Your task to perform on an android device: open app "Facebook Lite" (install if not already installed) Image 0: 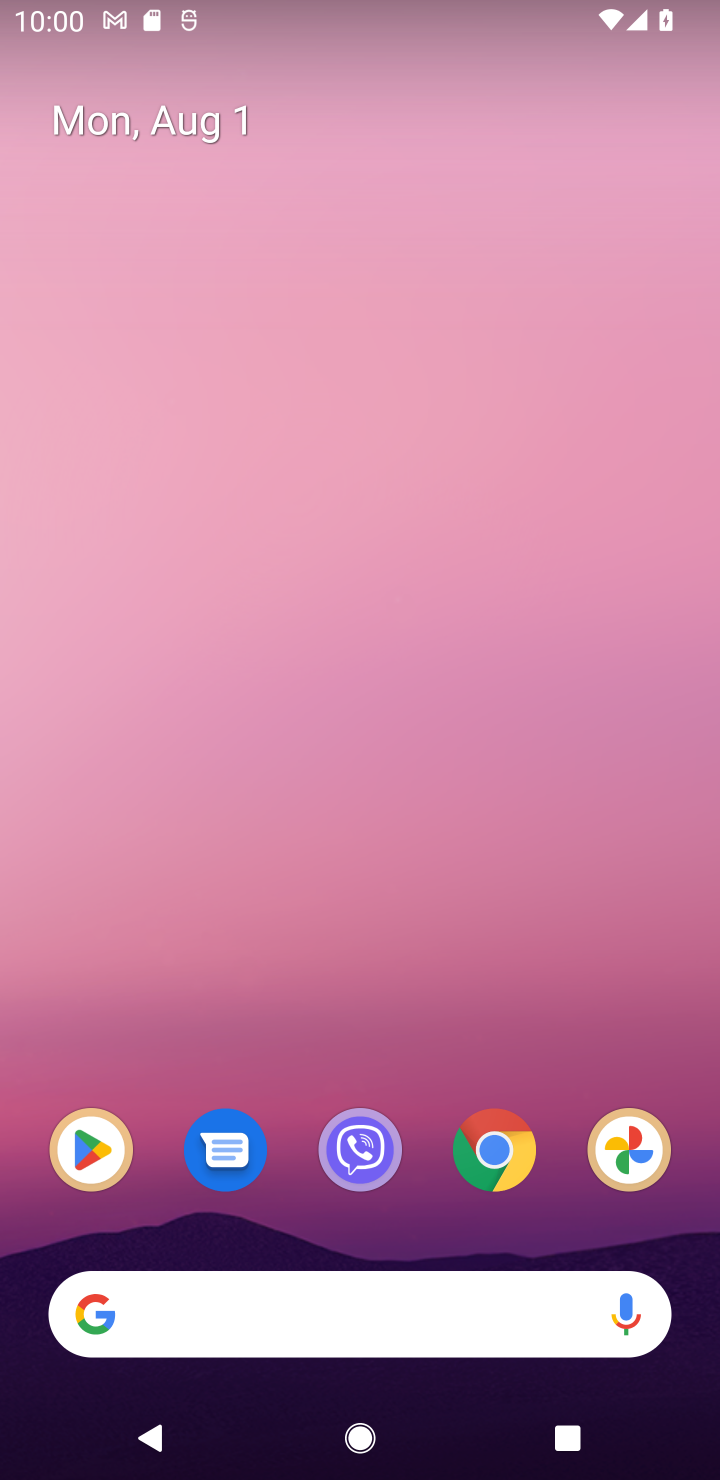
Step 0: drag from (297, 1310) to (372, 381)
Your task to perform on an android device: open app "Facebook Lite" (install if not already installed) Image 1: 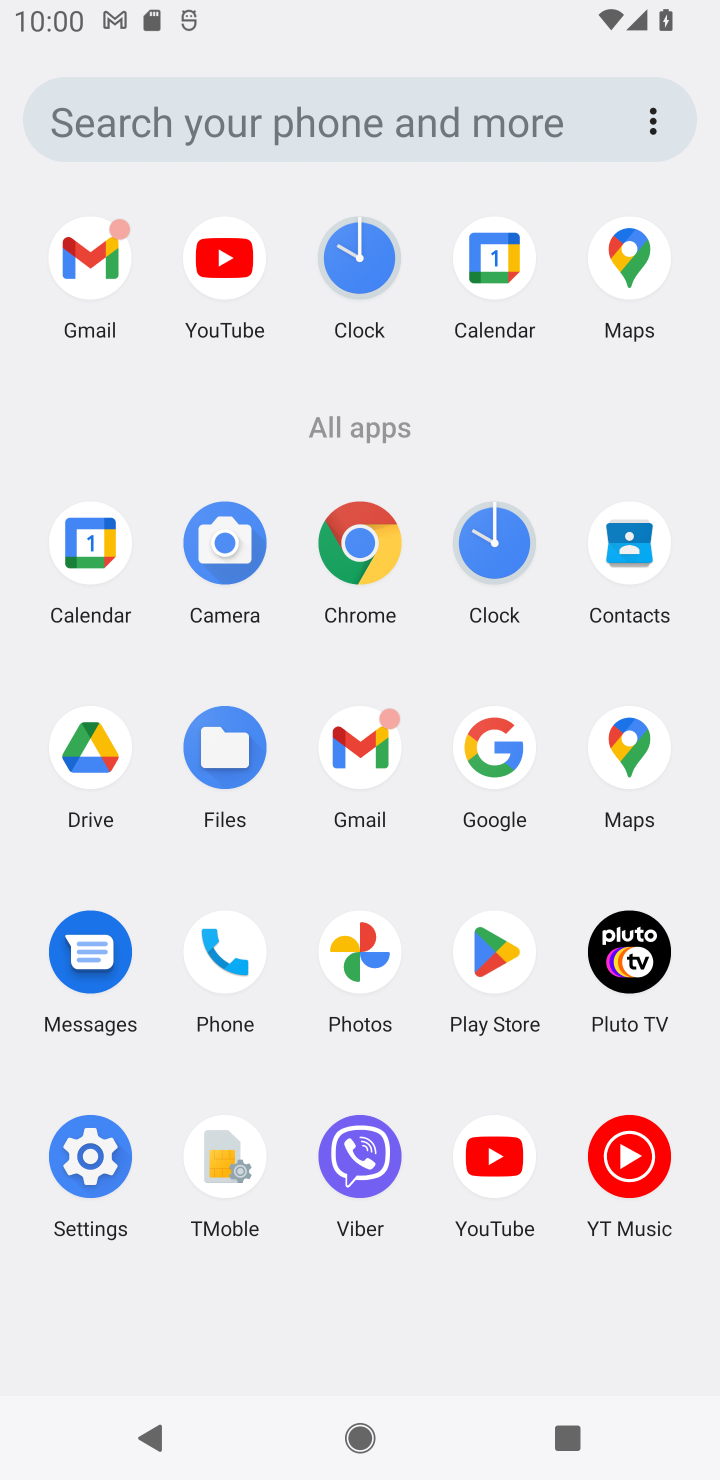
Step 1: click (516, 946)
Your task to perform on an android device: open app "Facebook Lite" (install if not already installed) Image 2: 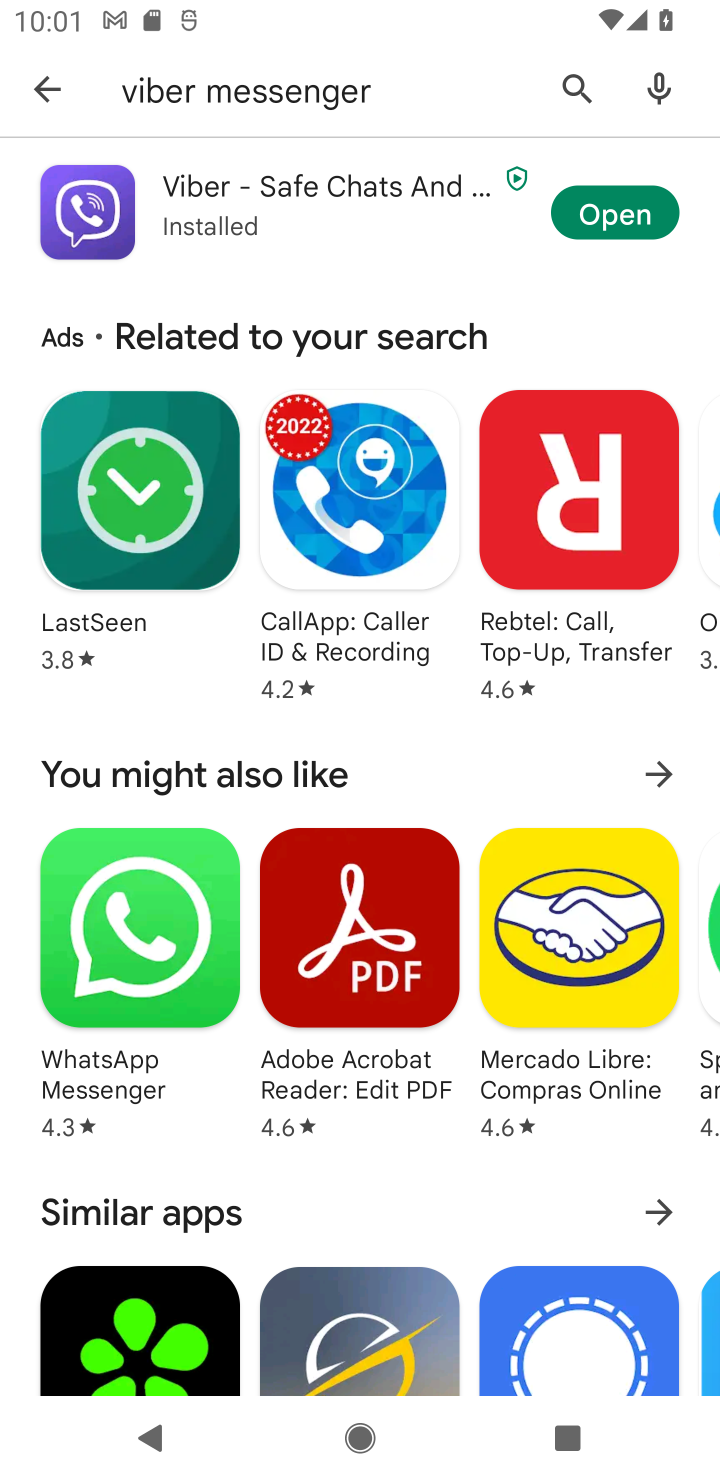
Step 2: click (567, 91)
Your task to perform on an android device: open app "Facebook Lite" (install if not already installed) Image 3: 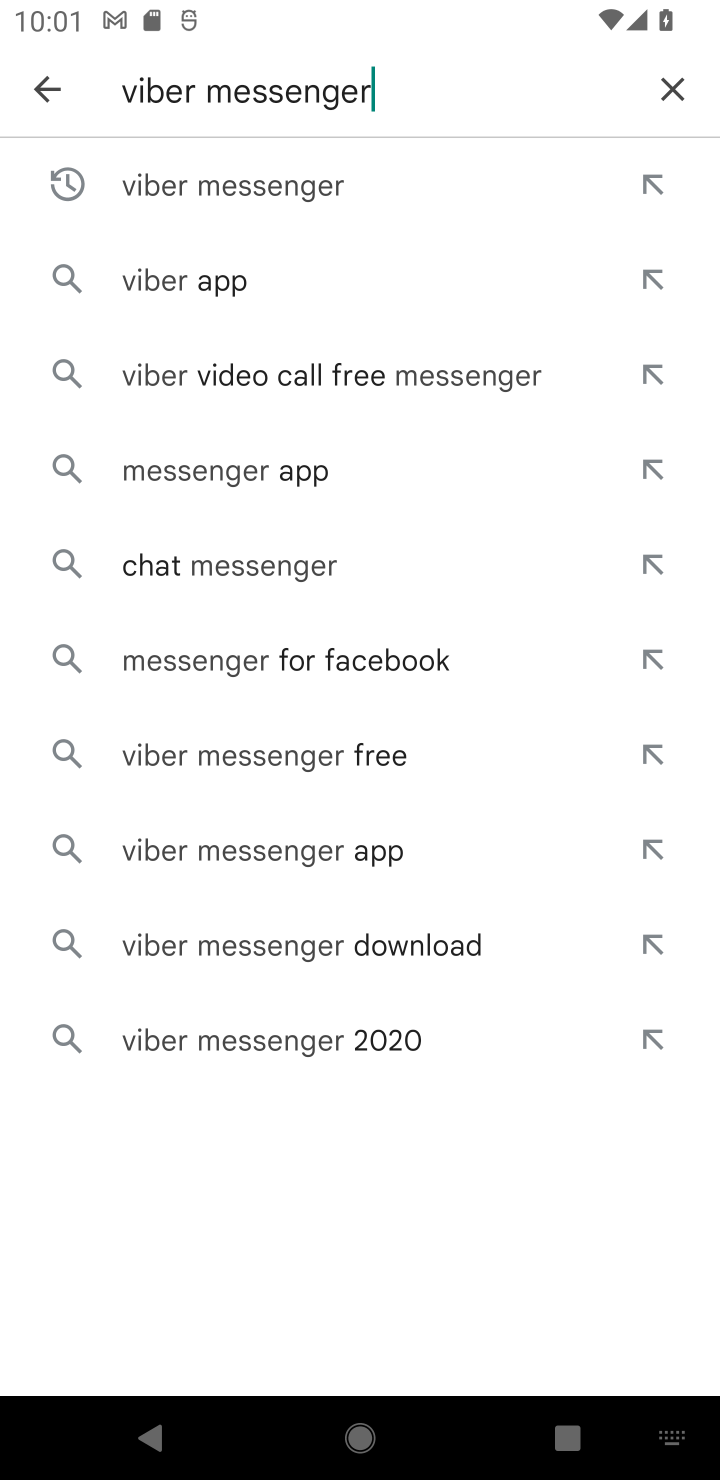
Step 3: click (673, 79)
Your task to perform on an android device: open app "Facebook Lite" (install if not already installed) Image 4: 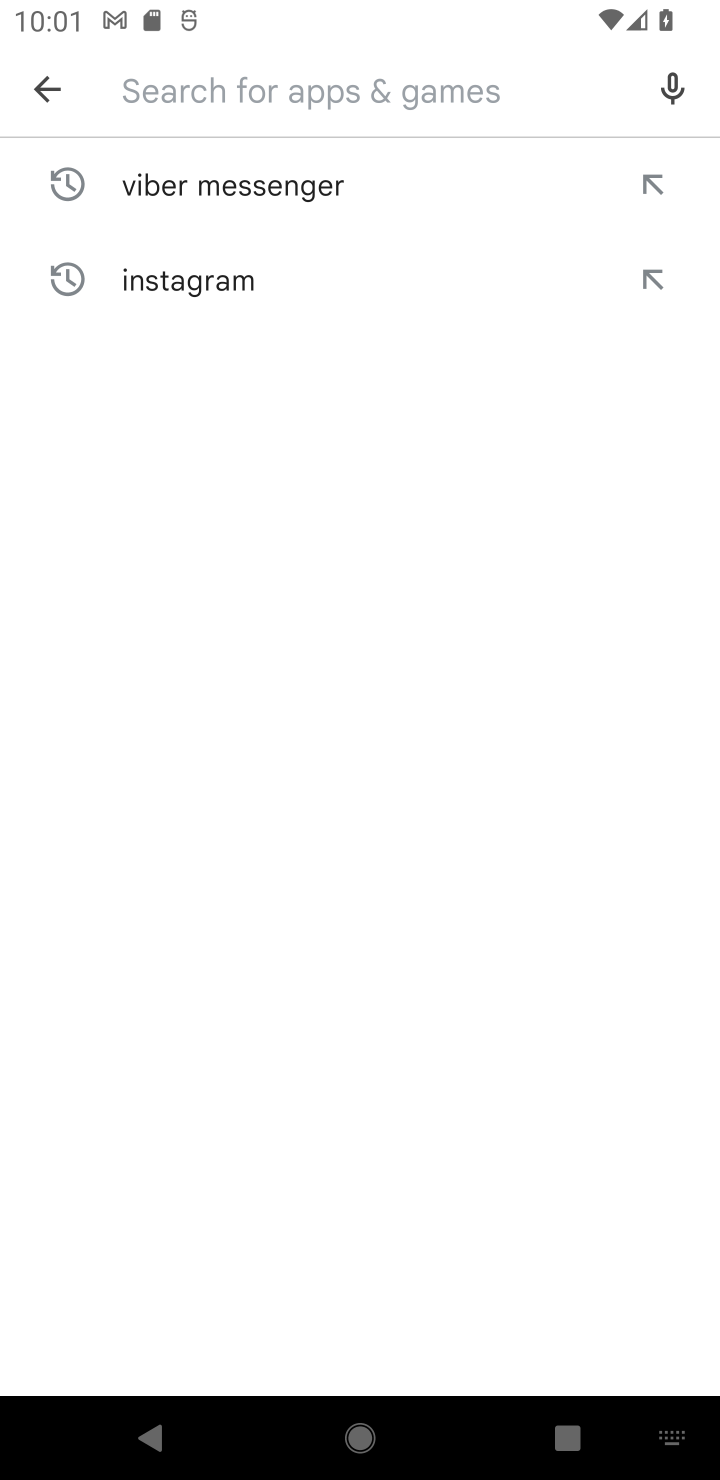
Step 4: type "Facebook Lite"
Your task to perform on an android device: open app "Facebook Lite" (install if not already installed) Image 5: 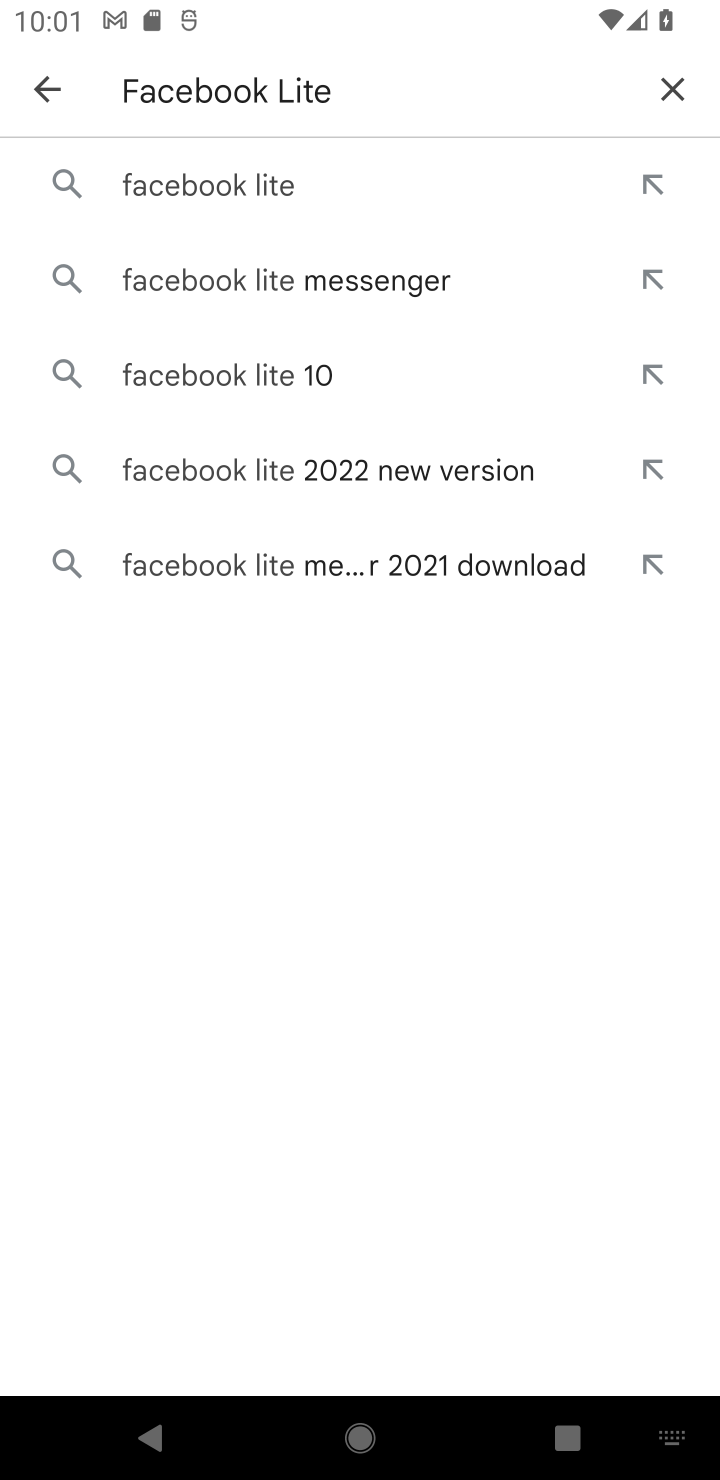
Step 5: click (259, 187)
Your task to perform on an android device: open app "Facebook Lite" (install if not already installed) Image 6: 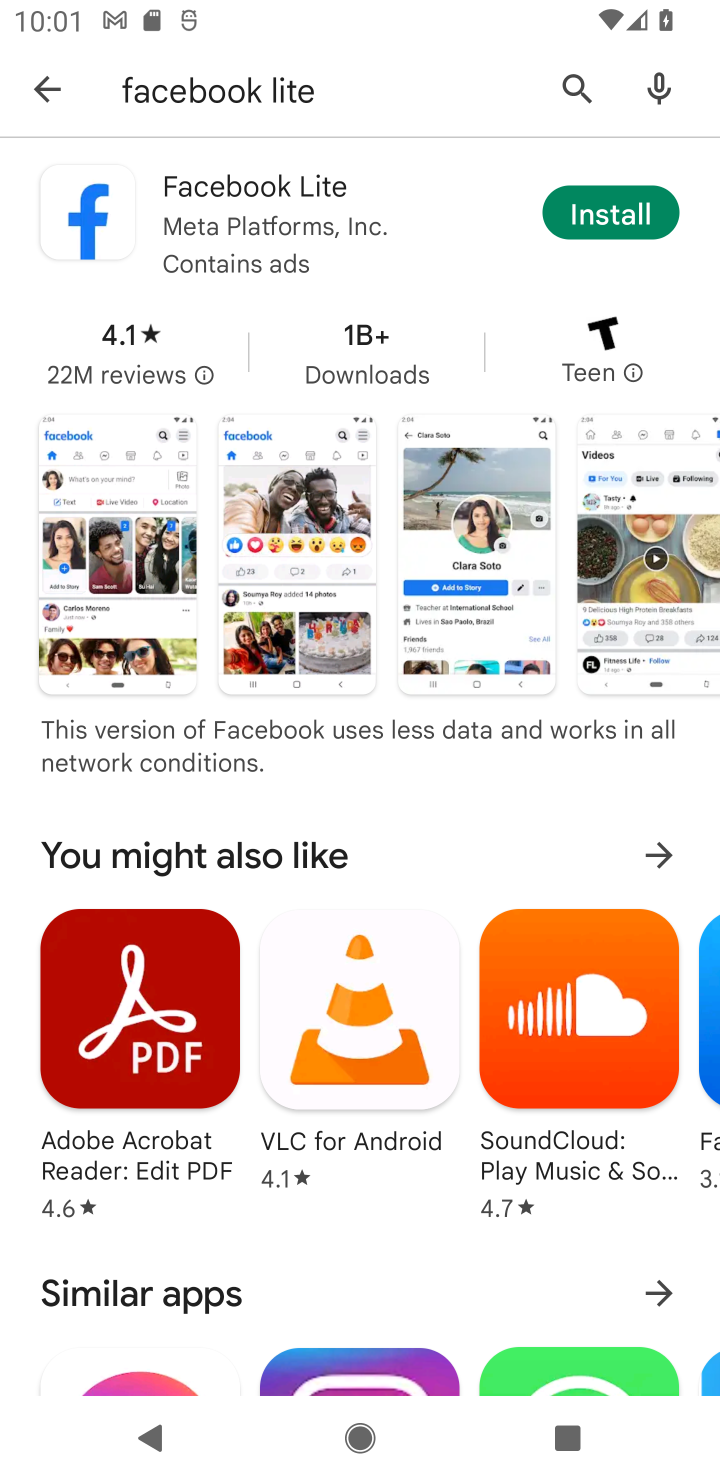
Step 6: click (637, 220)
Your task to perform on an android device: open app "Facebook Lite" (install if not already installed) Image 7: 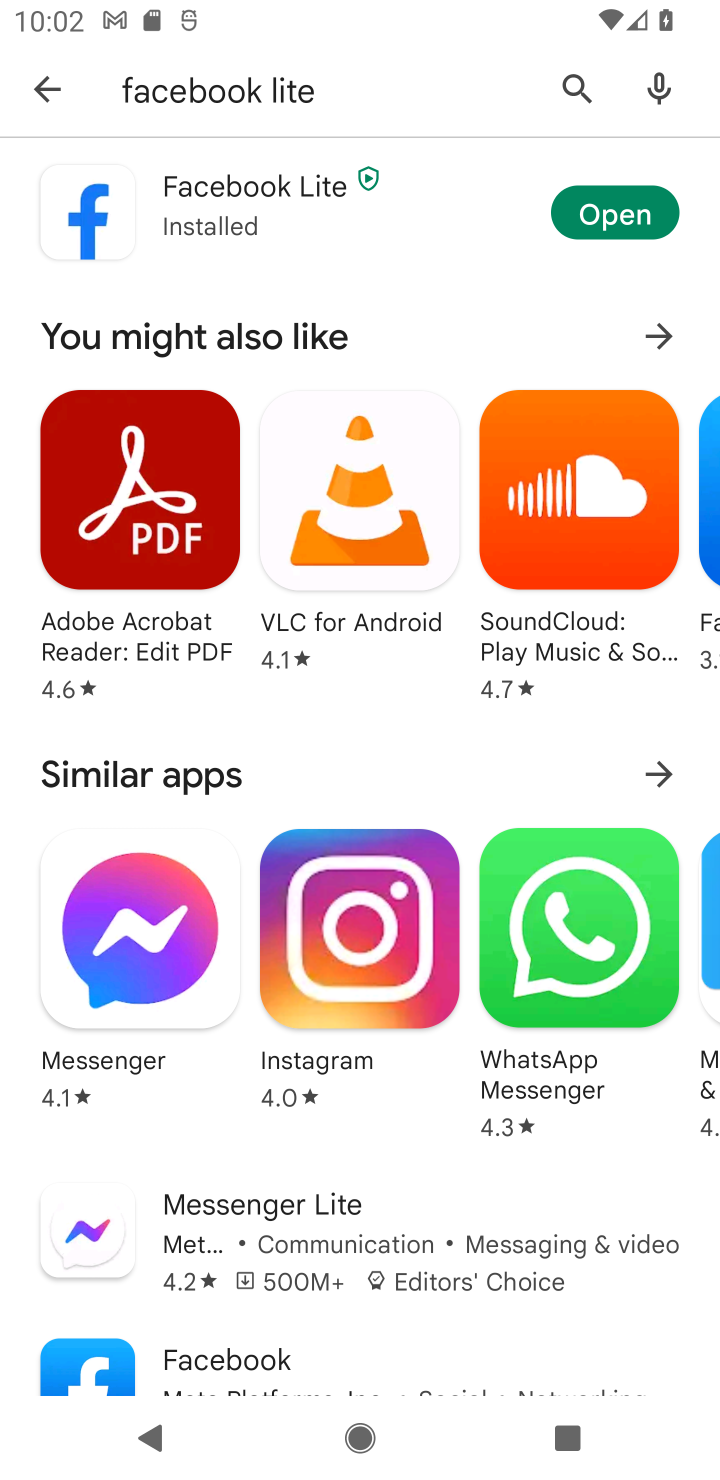
Step 7: click (607, 214)
Your task to perform on an android device: open app "Facebook Lite" (install if not already installed) Image 8: 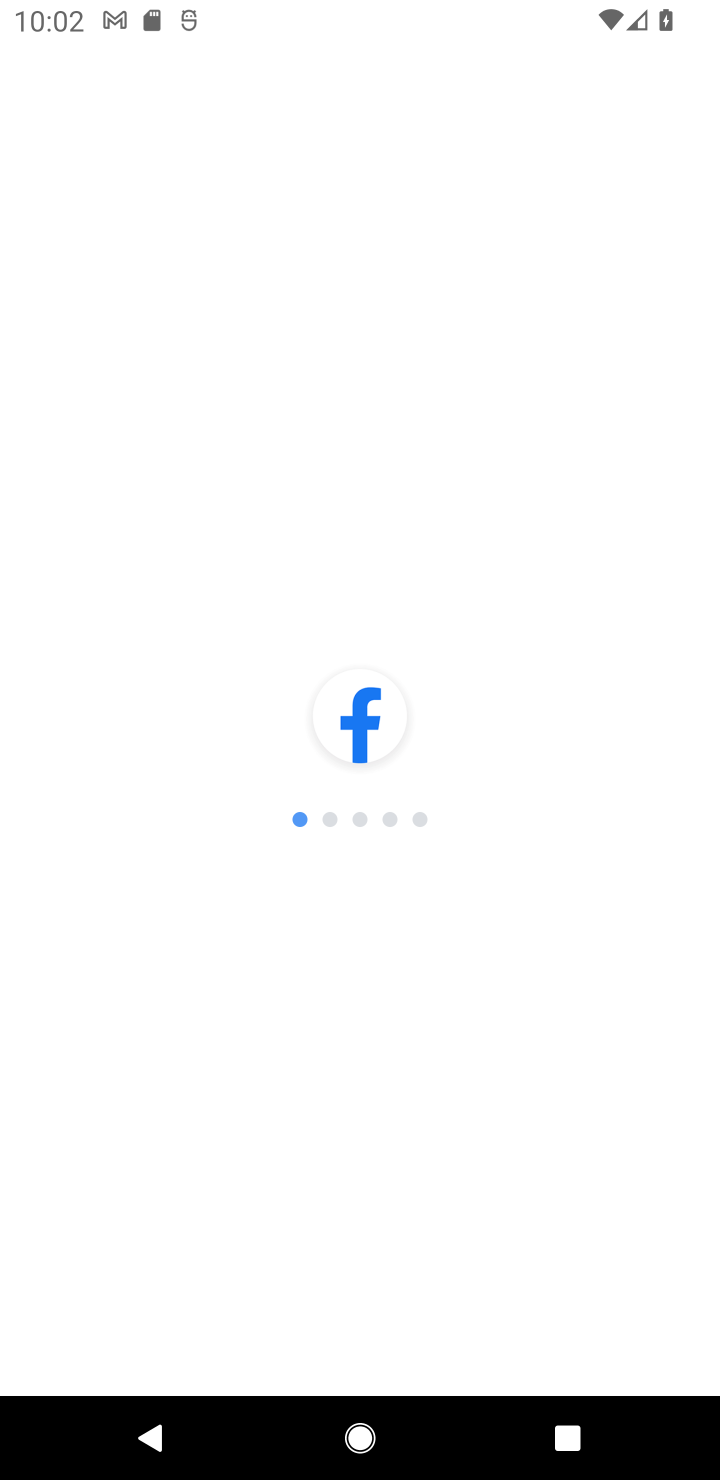
Step 8: task complete